Your task to perform on an android device: open app "Google Drive" (install if not already installed) Image 0: 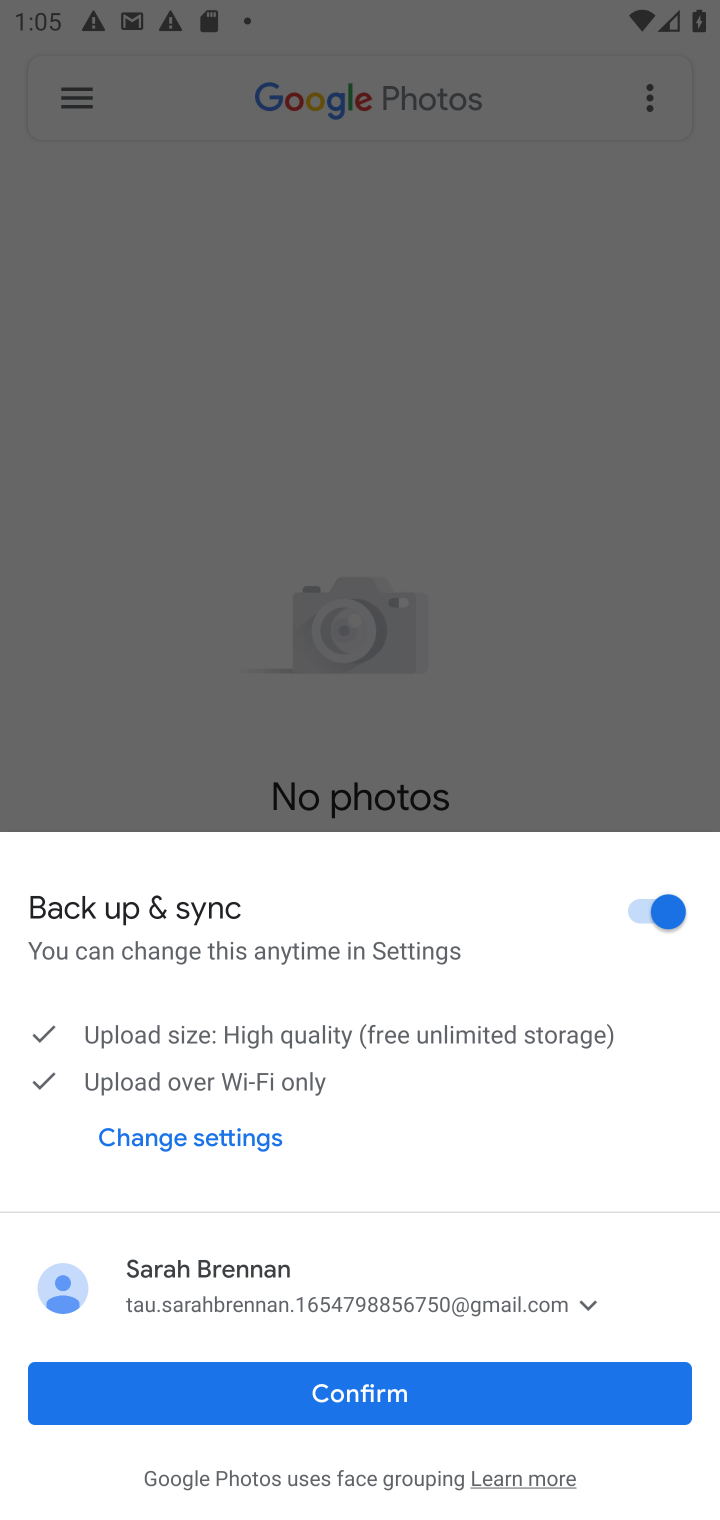
Step 0: press home button
Your task to perform on an android device: open app "Google Drive" (install if not already installed) Image 1: 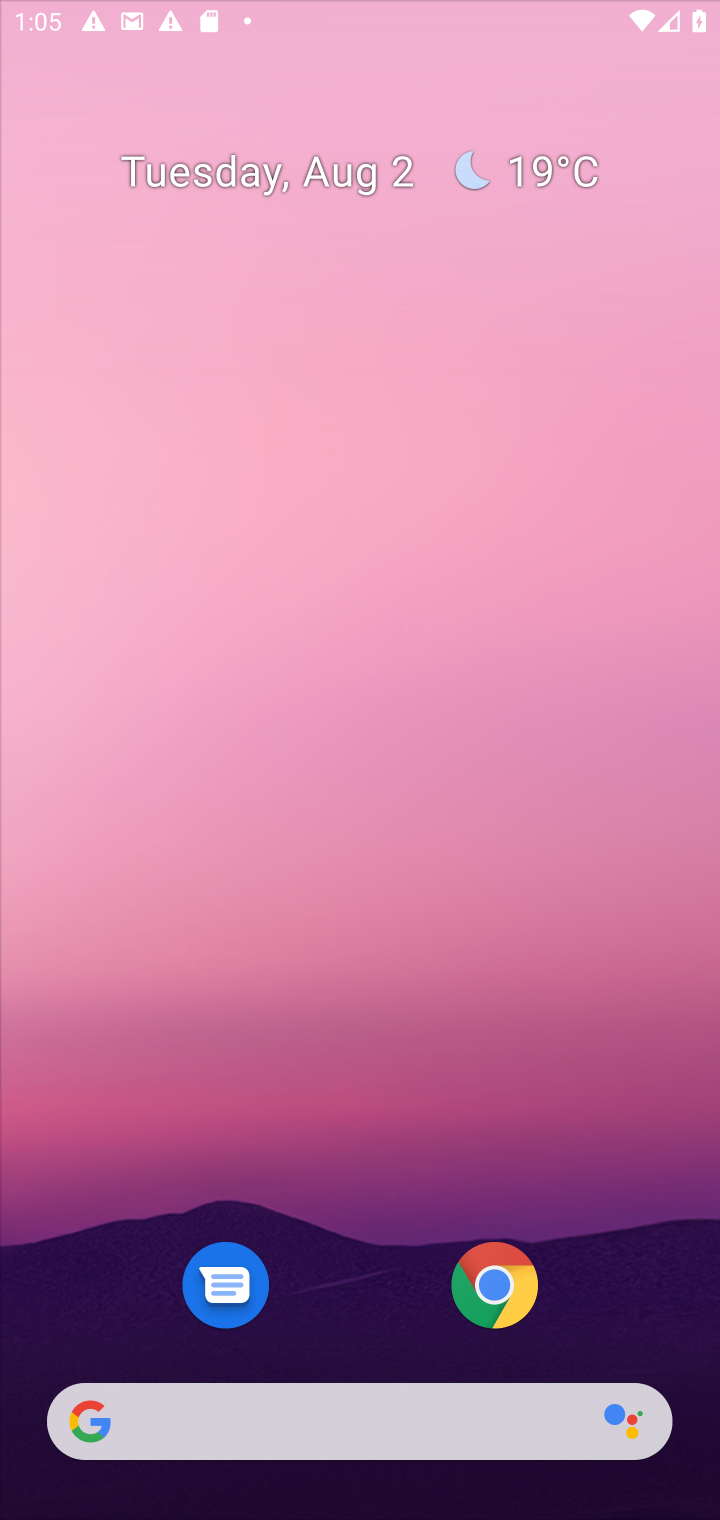
Step 1: drag from (344, 1180) to (356, 1008)
Your task to perform on an android device: open app "Google Drive" (install if not already installed) Image 2: 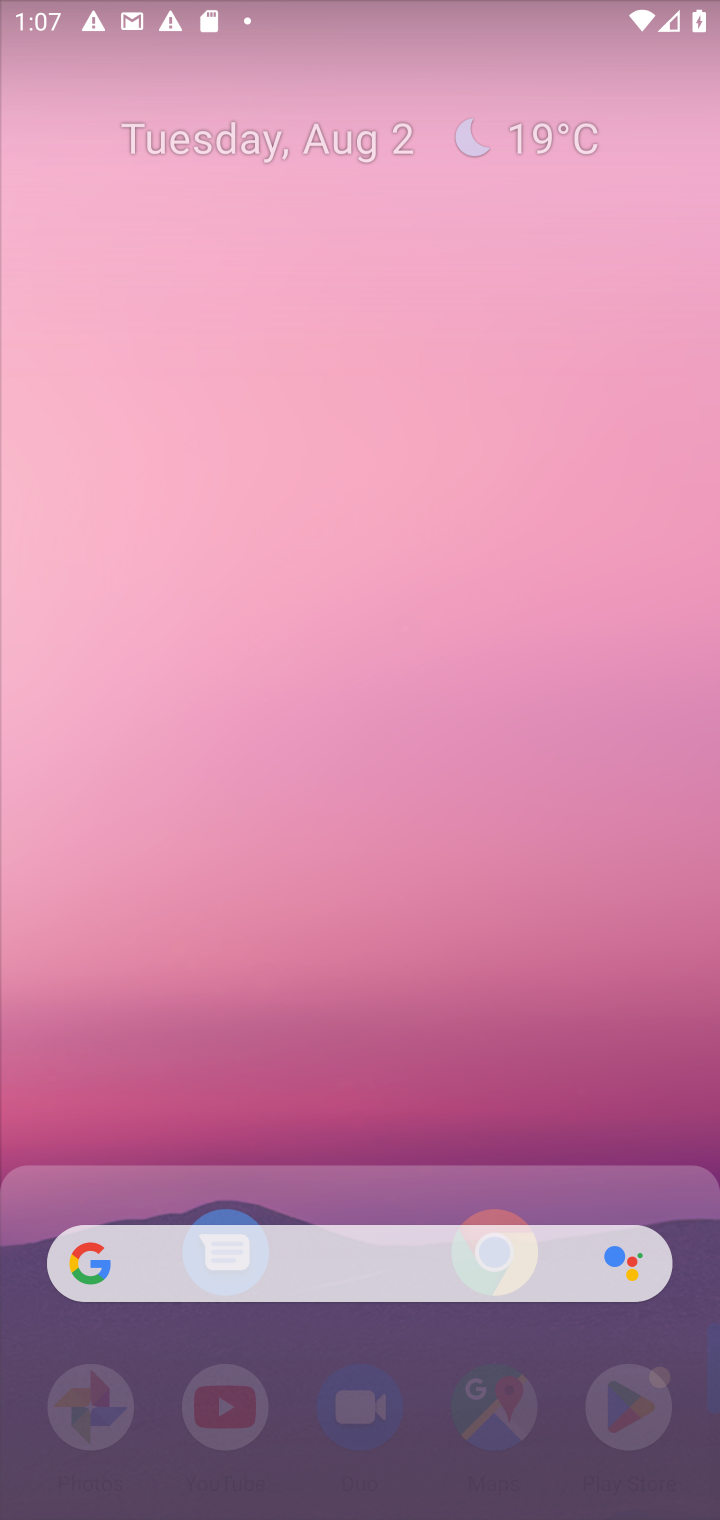
Step 2: drag from (264, 783) to (269, 167)
Your task to perform on an android device: open app "Google Drive" (install if not already installed) Image 3: 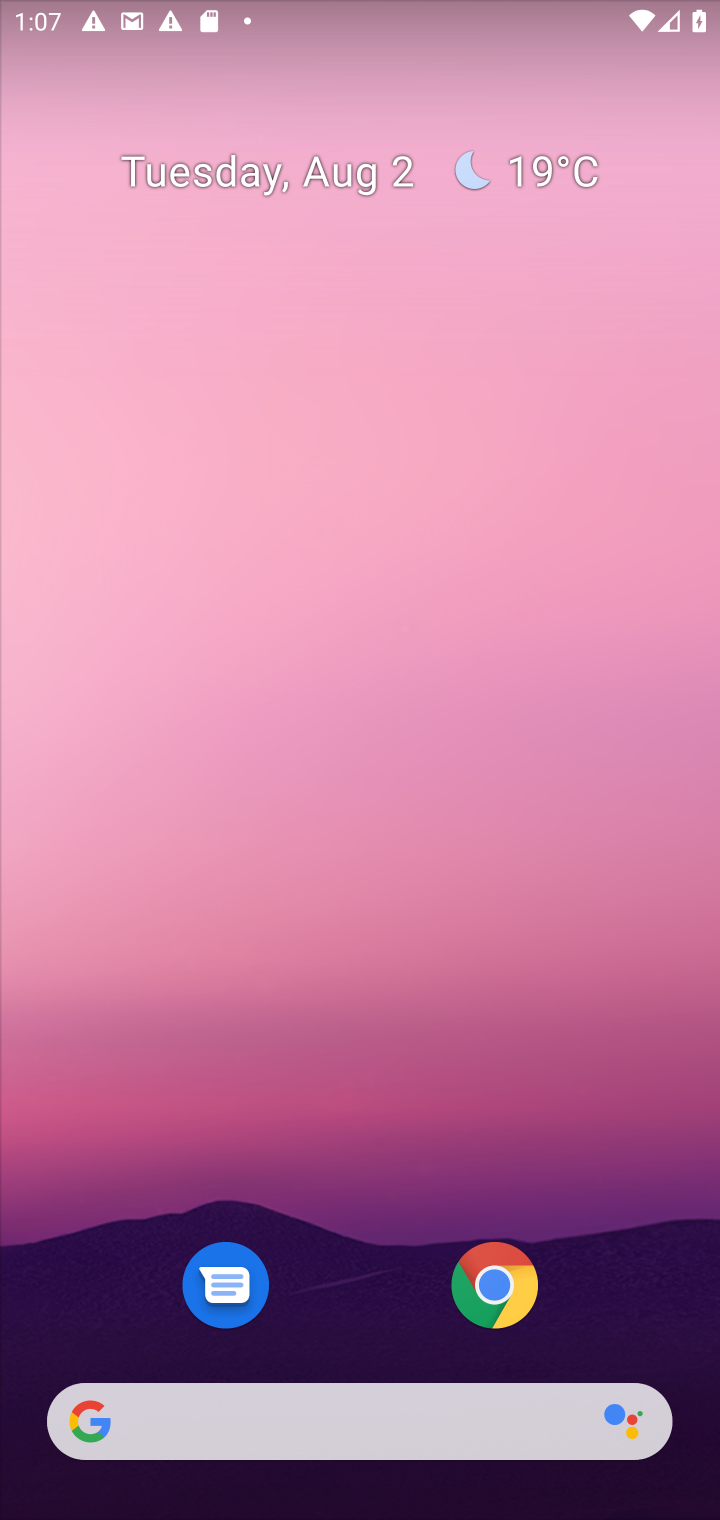
Step 3: drag from (299, 637) to (343, 56)
Your task to perform on an android device: open app "Google Drive" (install if not already installed) Image 4: 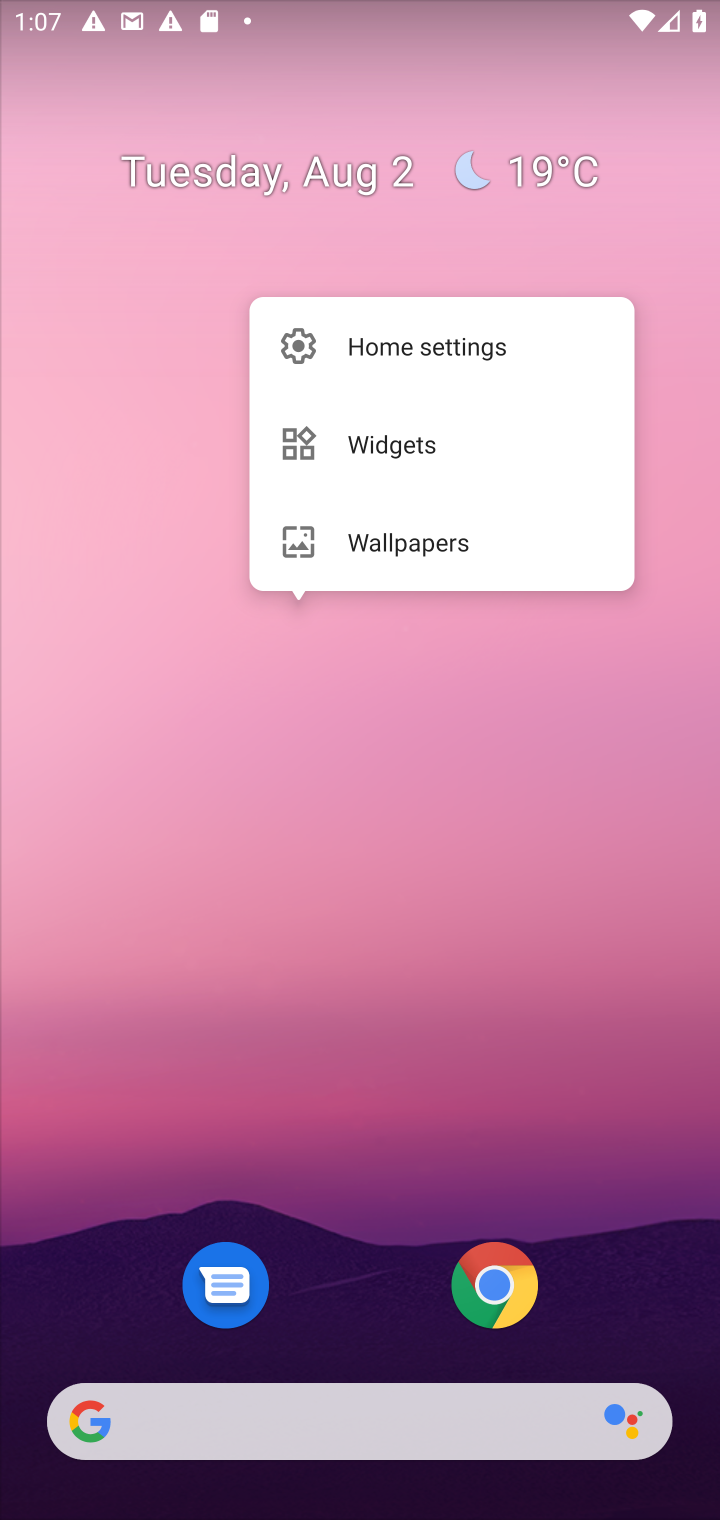
Step 4: click (419, 1126)
Your task to perform on an android device: open app "Google Drive" (install if not already installed) Image 5: 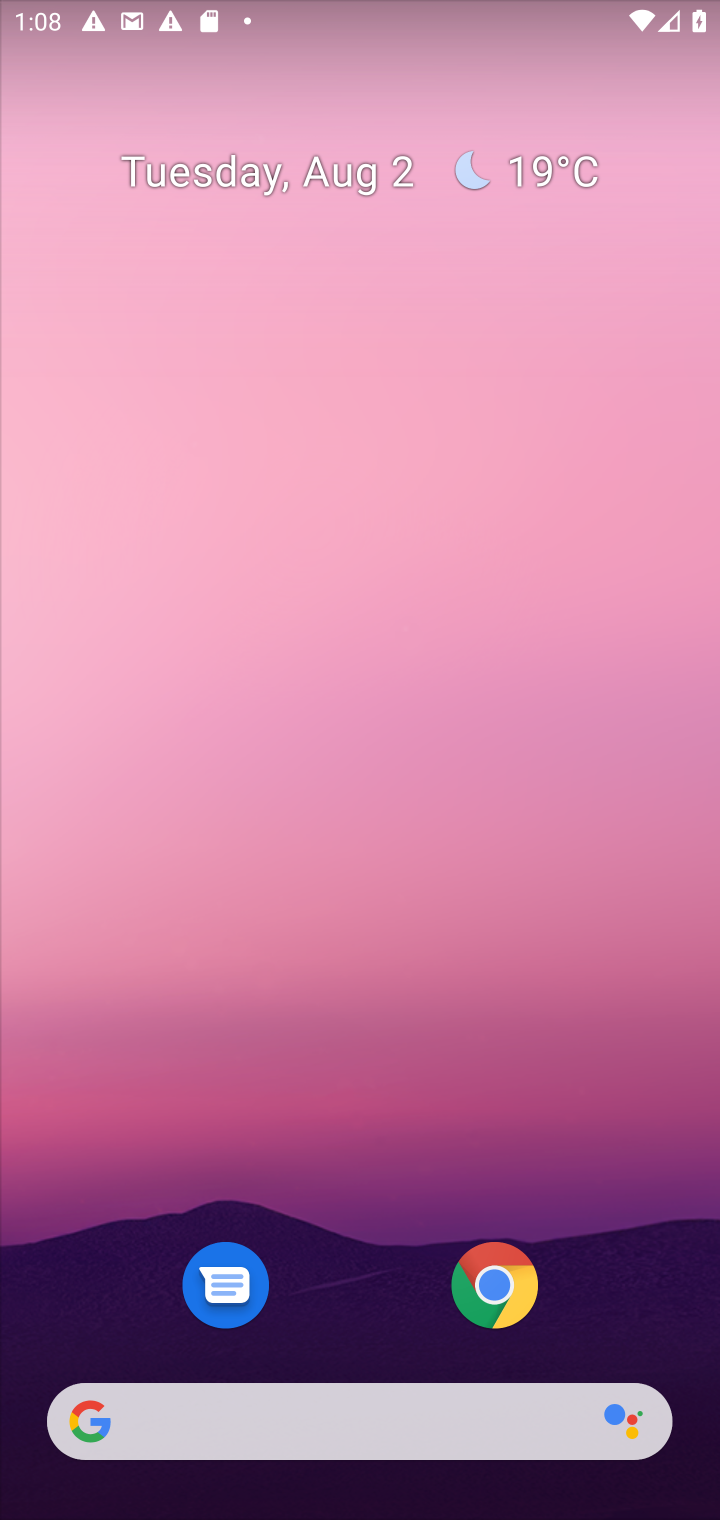
Step 5: drag from (308, 967) to (316, 365)
Your task to perform on an android device: open app "Google Drive" (install if not already installed) Image 6: 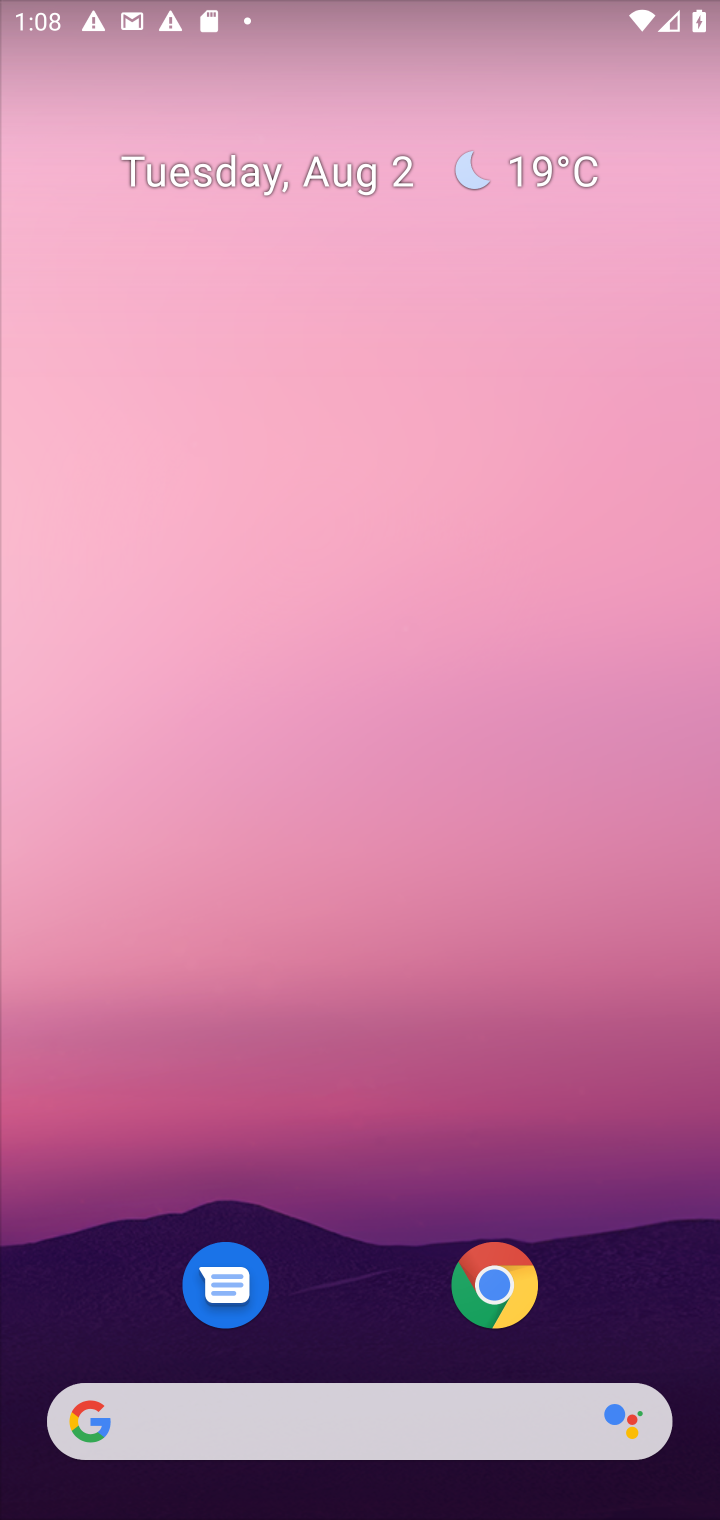
Step 6: drag from (397, 1279) to (467, 198)
Your task to perform on an android device: open app "Google Drive" (install if not already installed) Image 7: 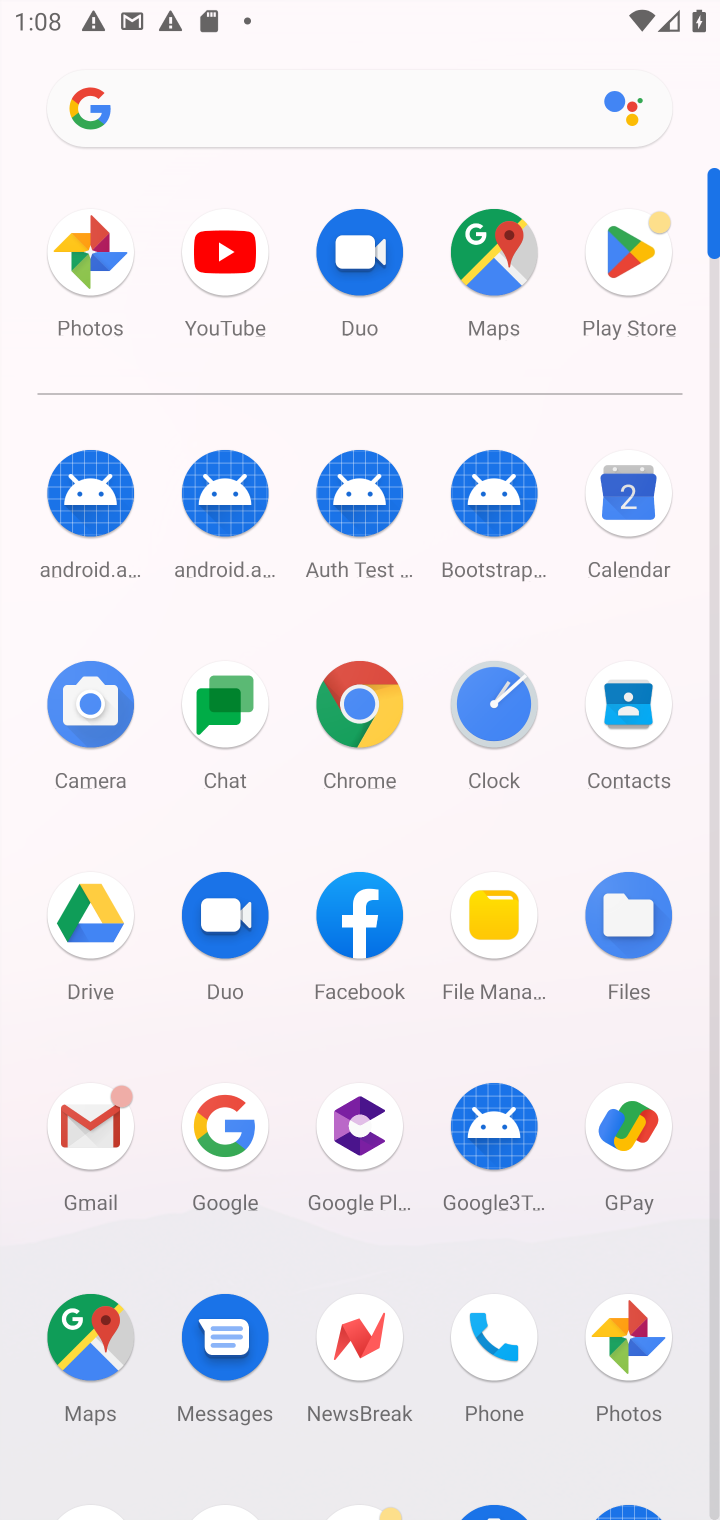
Step 7: click (635, 237)
Your task to perform on an android device: open app "Google Drive" (install if not already installed) Image 8: 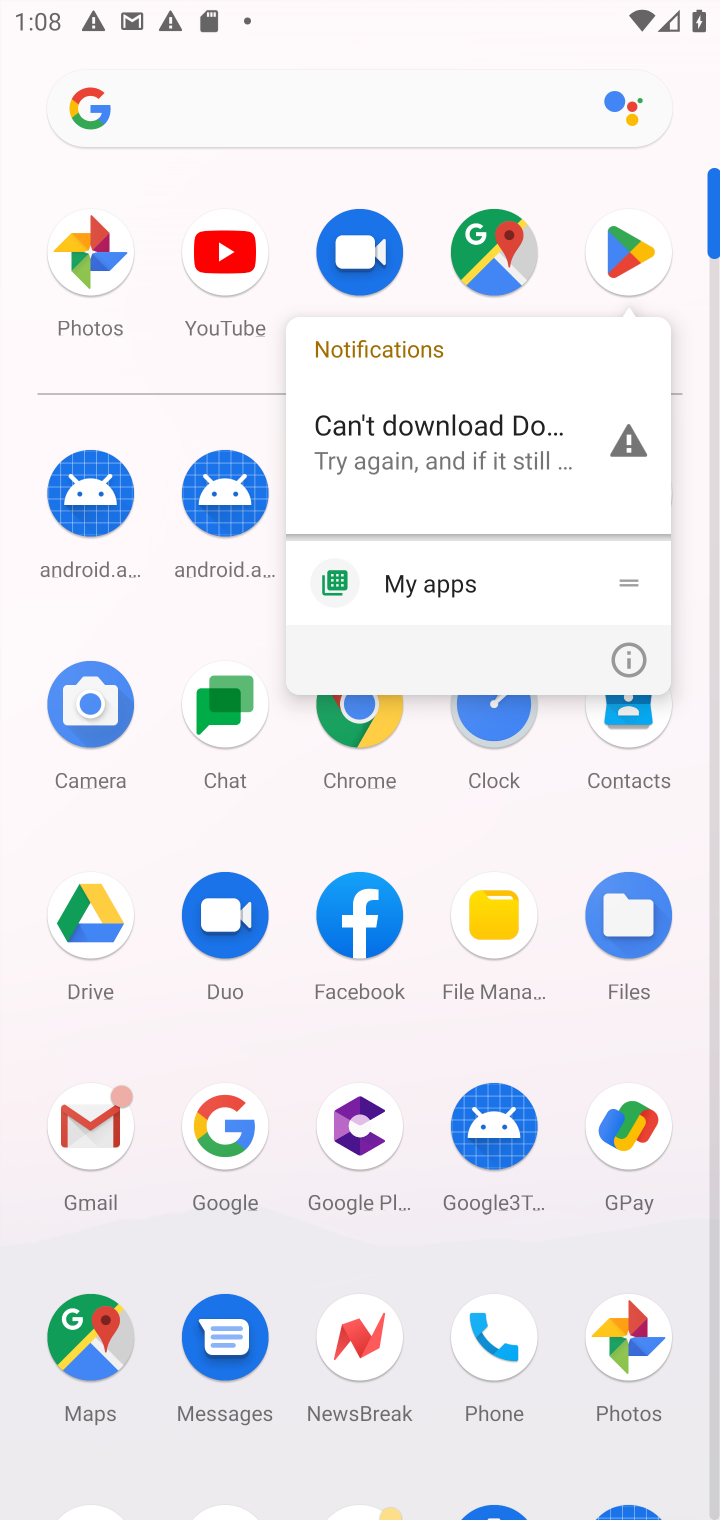
Step 8: click (635, 237)
Your task to perform on an android device: open app "Google Drive" (install if not already installed) Image 9: 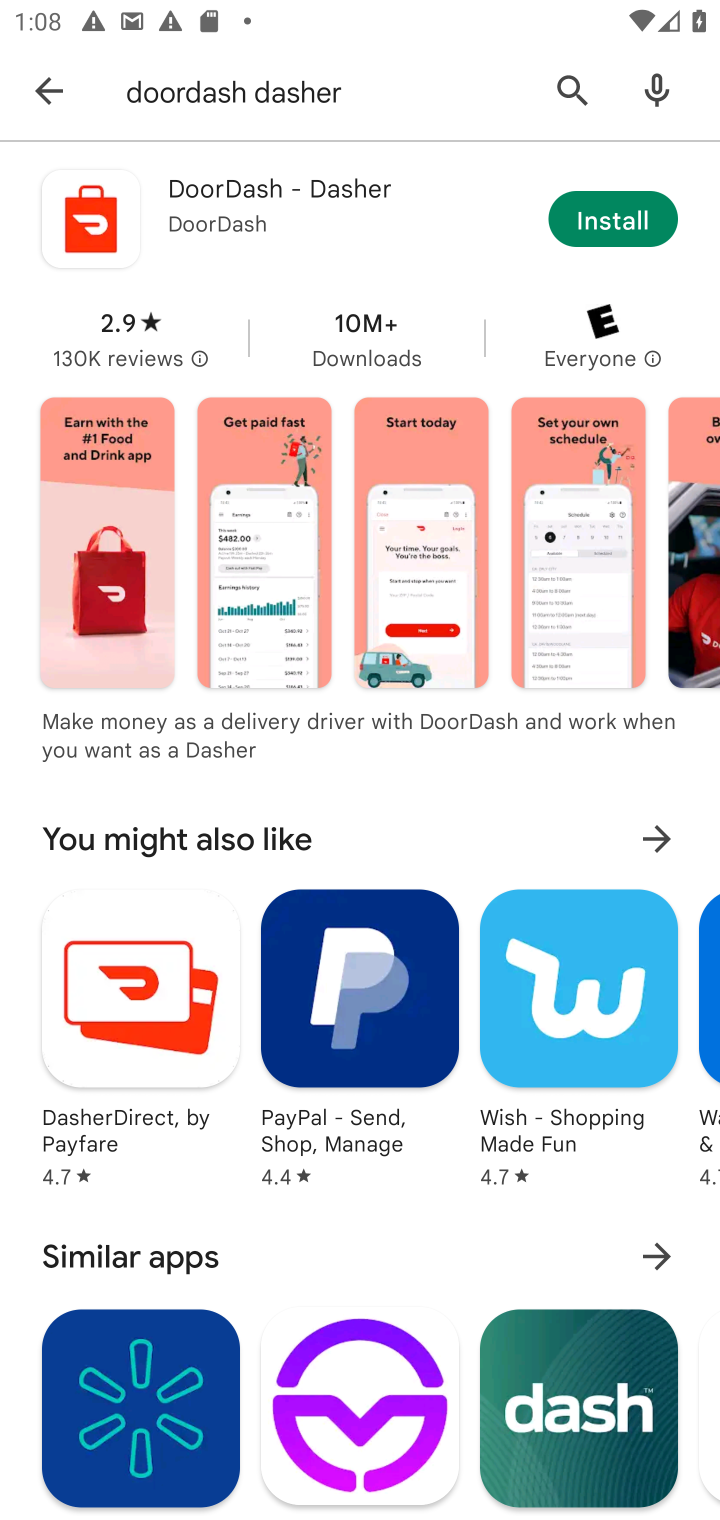
Step 9: click (592, 93)
Your task to perform on an android device: open app "Google Drive" (install if not already installed) Image 10: 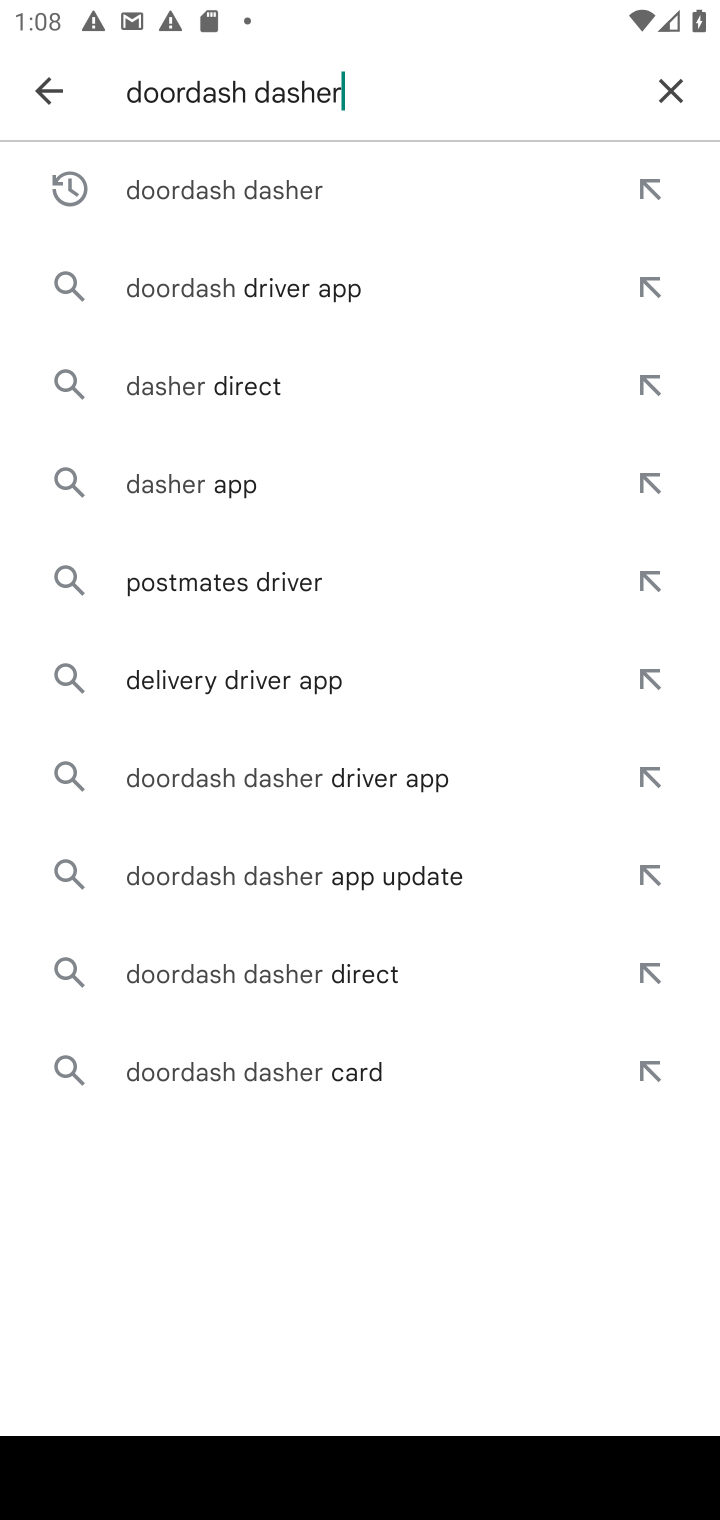
Step 10: click (675, 79)
Your task to perform on an android device: open app "Google Drive" (install if not already installed) Image 11: 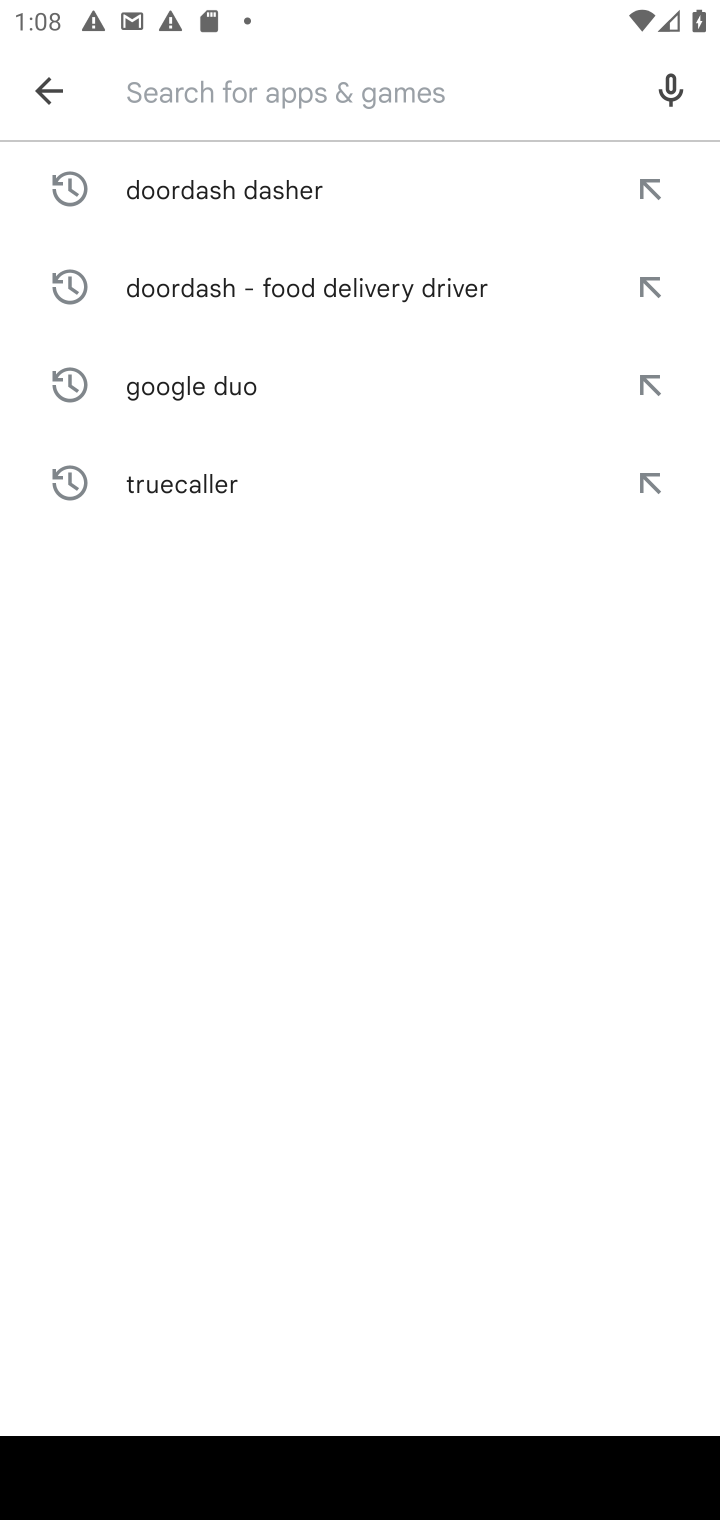
Step 11: click (294, 108)
Your task to perform on an android device: open app "Google Drive" (install if not already installed) Image 12: 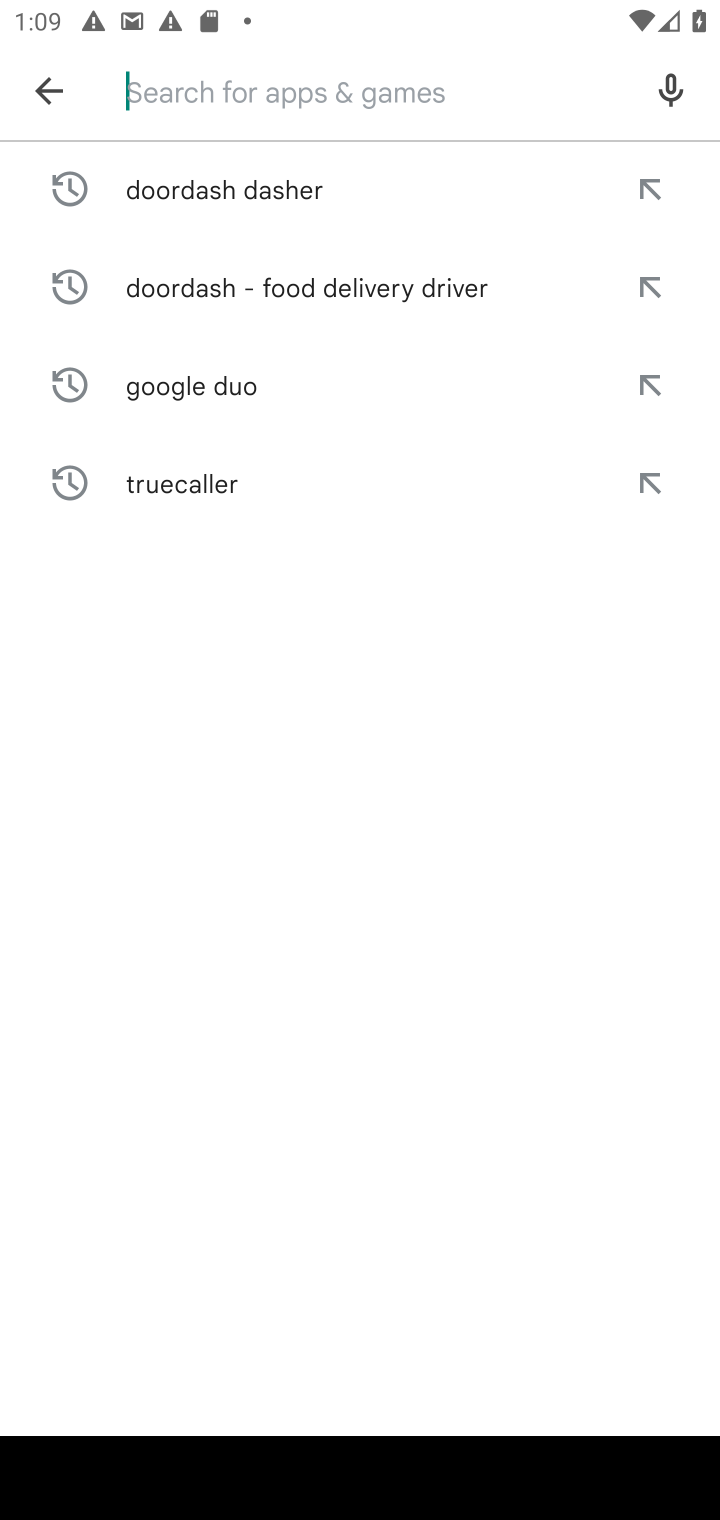
Step 12: type "Google Drive"
Your task to perform on an android device: open app "Google Drive" (install if not already installed) Image 13: 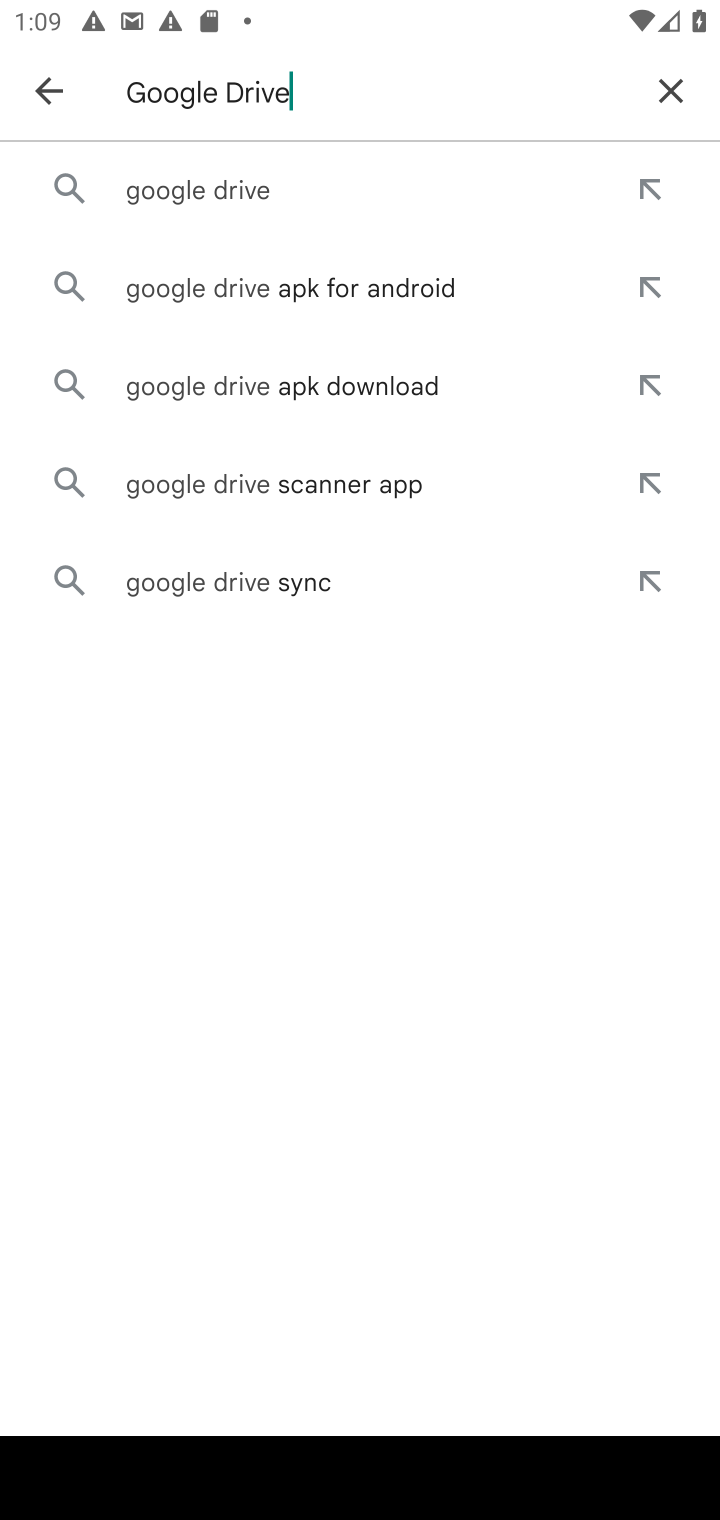
Step 13: click (138, 205)
Your task to perform on an android device: open app "Google Drive" (install if not already installed) Image 14: 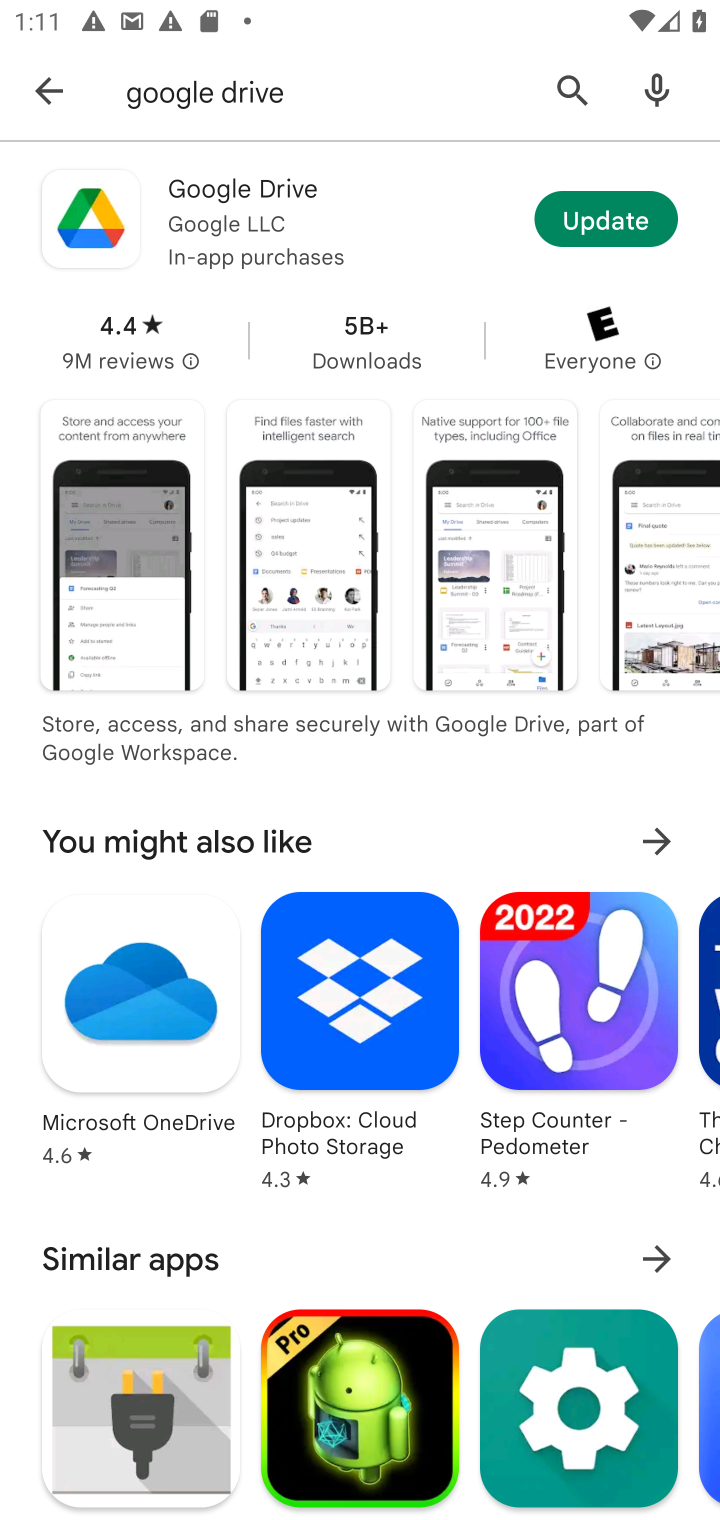
Step 14: click (293, 196)
Your task to perform on an android device: open app "Google Drive" (install if not already installed) Image 15: 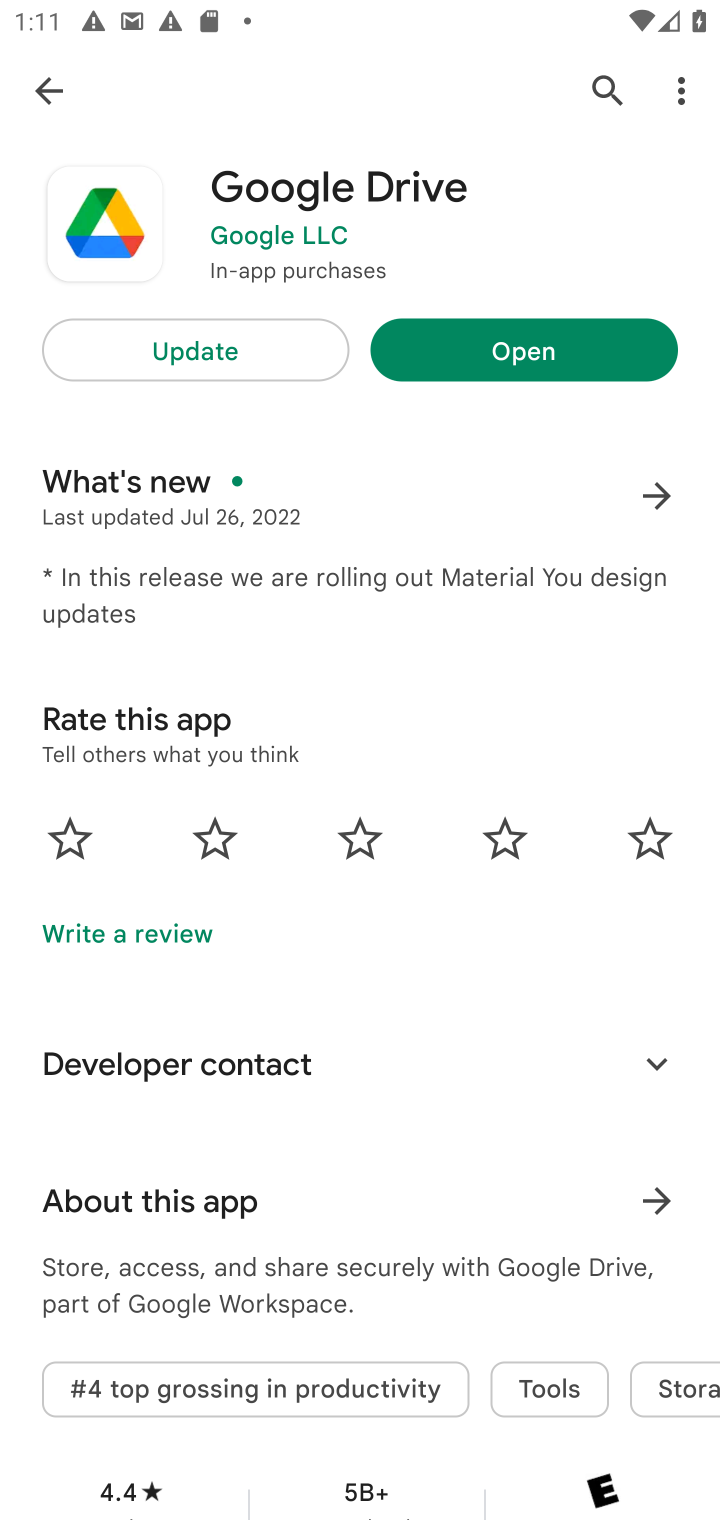
Step 15: click (435, 339)
Your task to perform on an android device: open app "Google Drive" (install if not already installed) Image 16: 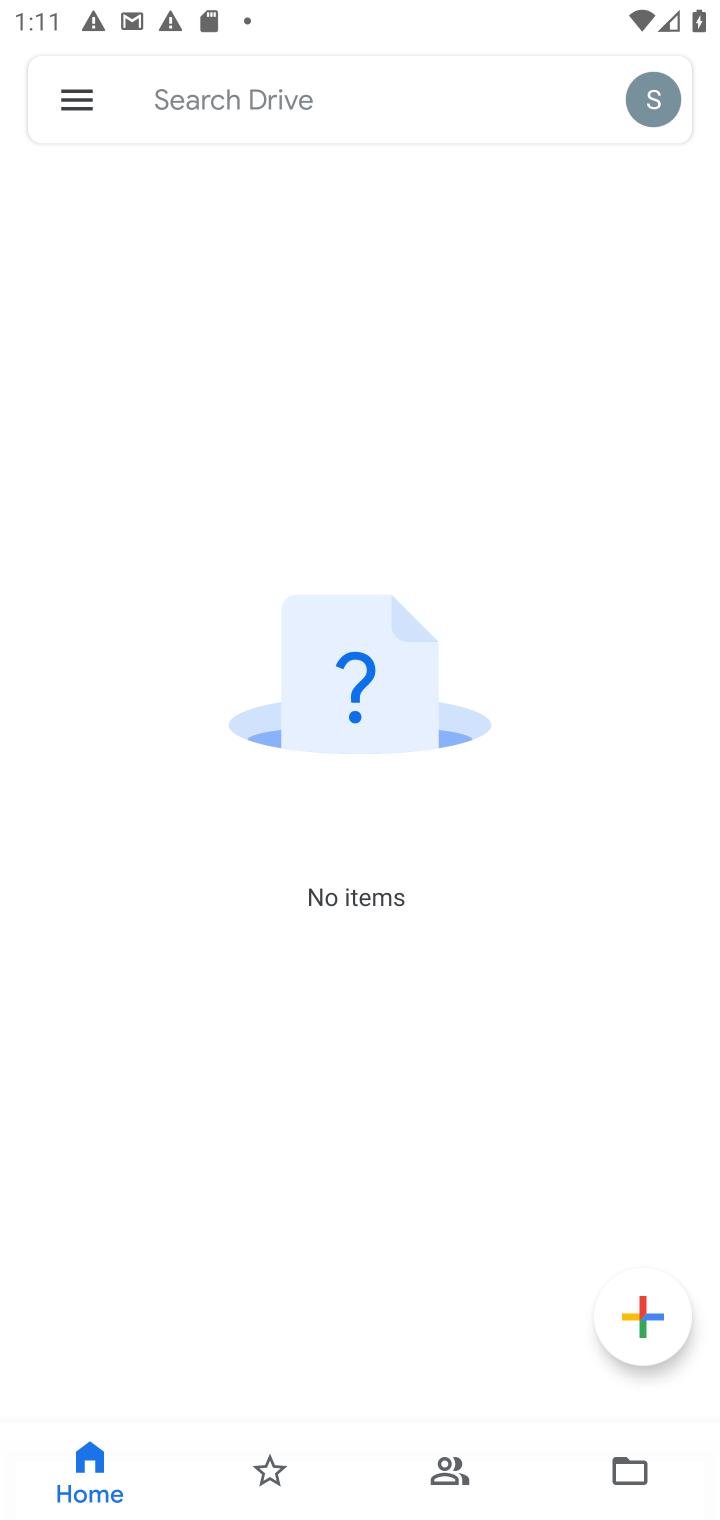
Step 16: task complete